Your task to perform on an android device: What's the weather today? Image 0: 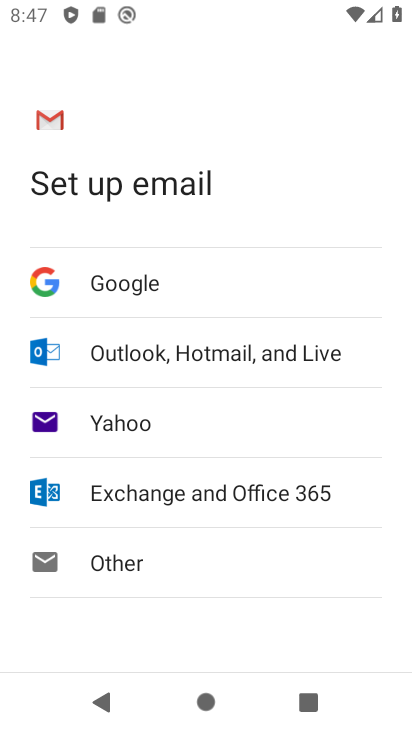
Step 0: press home button
Your task to perform on an android device: What's the weather today? Image 1: 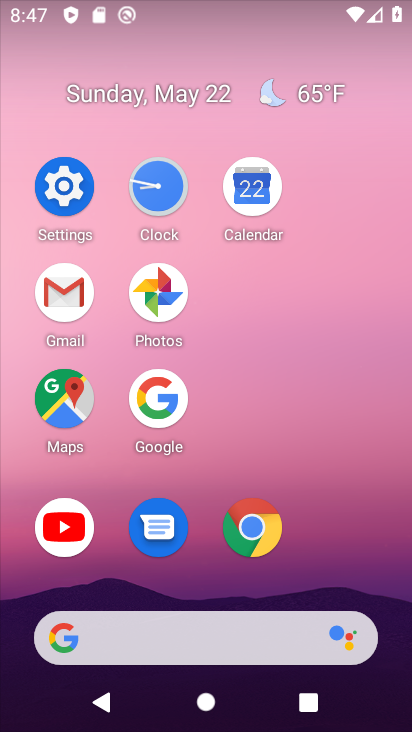
Step 1: click (170, 399)
Your task to perform on an android device: What's the weather today? Image 2: 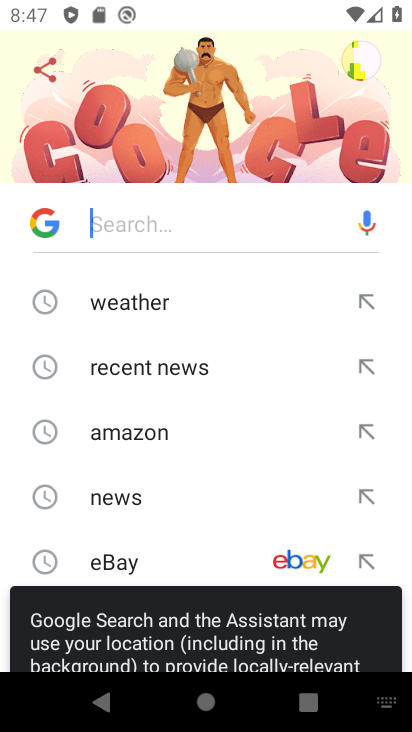
Step 2: click (183, 289)
Your task to perform on an android device: What's the weather today? Image 3: 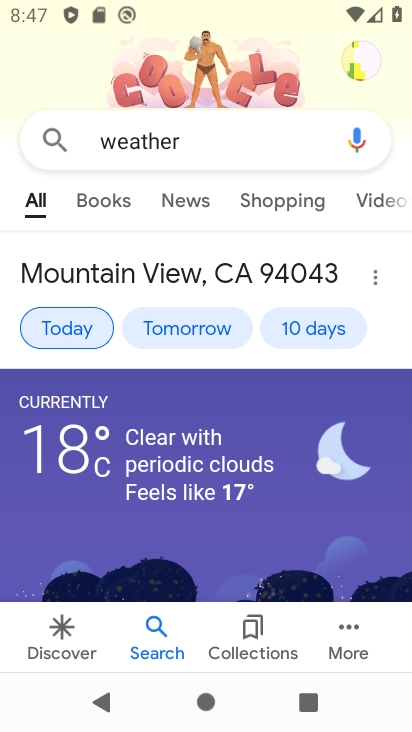
Step 3: task complete